Your task to perform on an android device: turn off notifications in google photos Image 0: 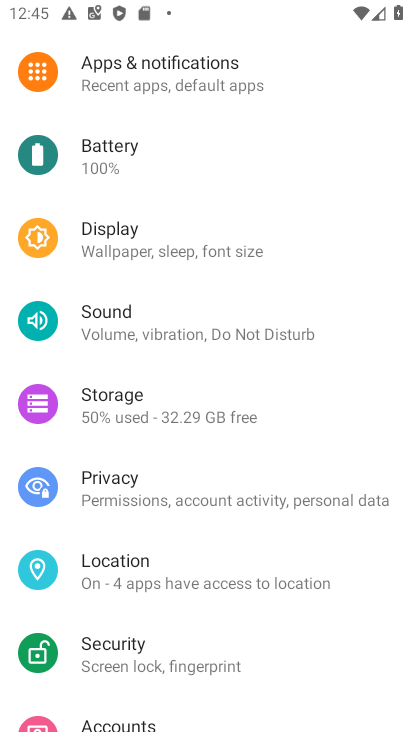
Step 0: press home button
Your task to perform on an android device: turn off notifications in google photos Image 1: 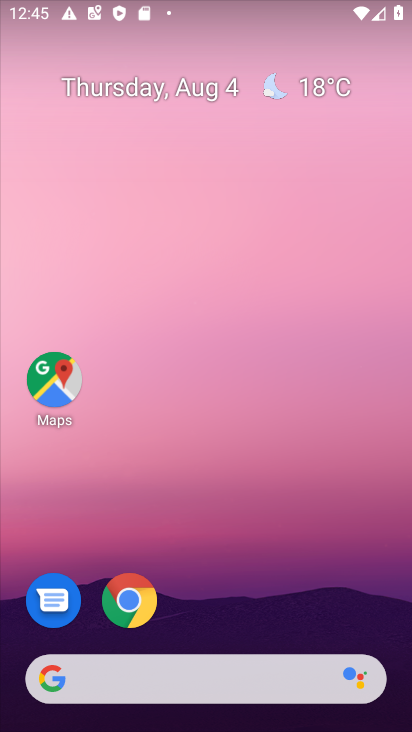
Step 1: drag from (154, 675) to (278, 138)
Your task to perform on an android device: turn off notifications in google photos Image 2: 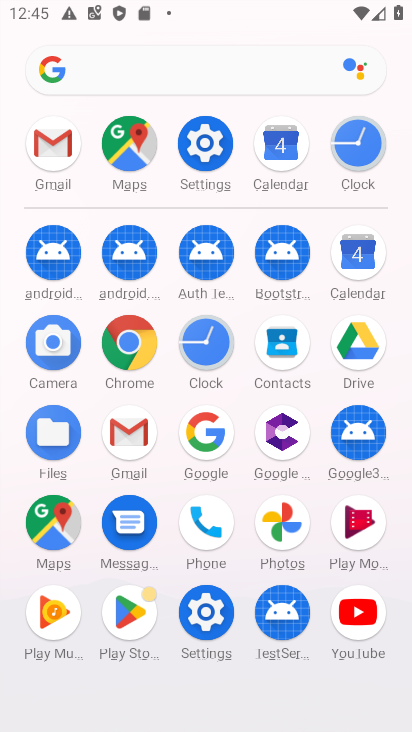
Step 2: click (280, 520)
Your task to perform on an android device: turn off notifications in google photos Image 3: 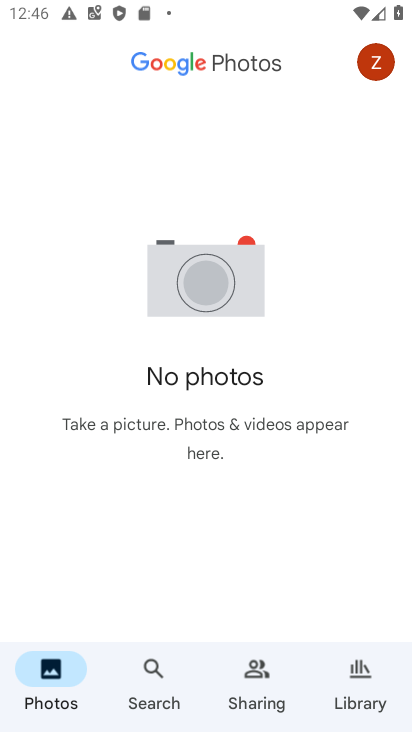
Step 3: click (374, 64)
Your task to perform on an android device: turn off notifications in google photos Image 4: 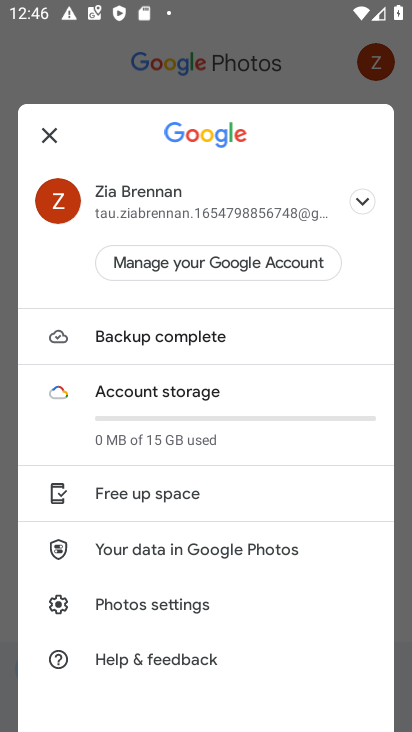
Step 4: click (167, 605)
Your task to perform on an android device: turn off notifications in google photos Image 5: 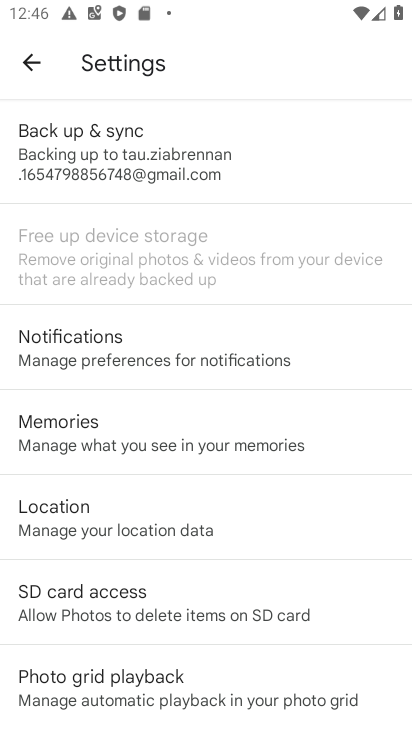
Step 5: click (136, 347)
Your task to perform on an android device: turn off notifications in google photos Image 6: 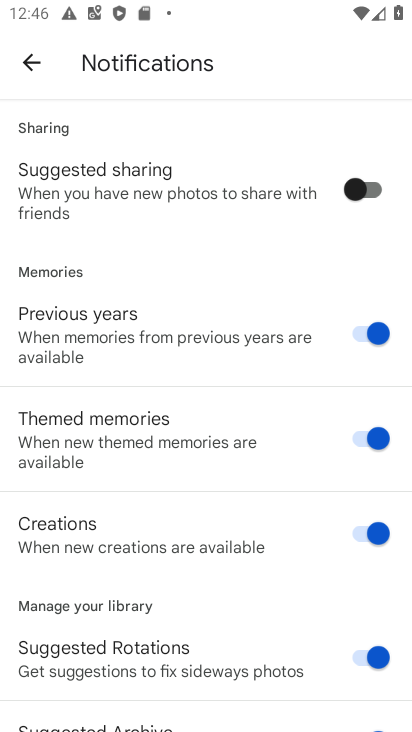
Step 6: drag from (159, 668) to (323, 136)
Your task to perform on an android device: turn off notifications in google photos Image 7: 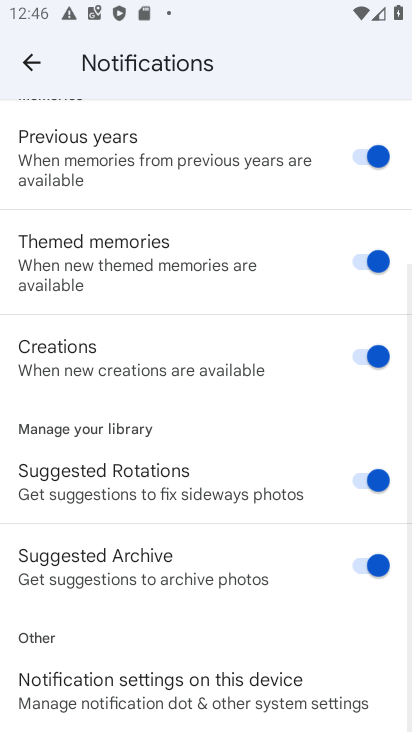
Step 7: click (120, 693)
Your task to perform on an android device: turn off notifications in google photos Image 8: 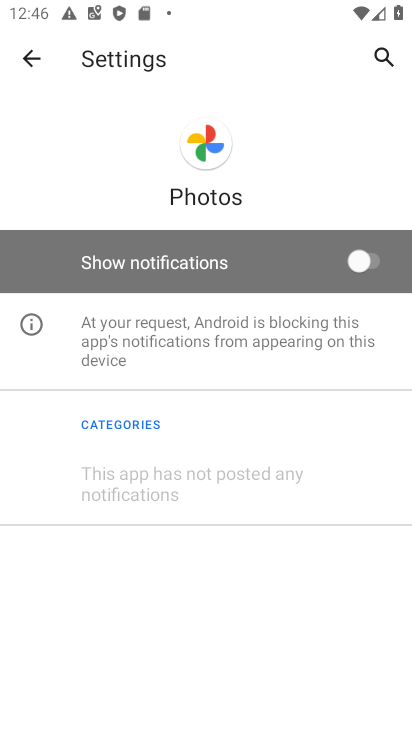
Step 8: task complete